Your task to perform on an android device: turn off location Image 0: 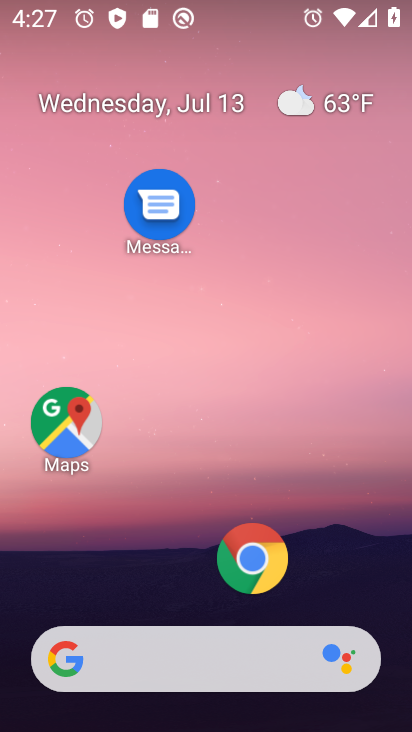
Step 0: drag from (199, 517) to (214, 192)
Your task to perform on an android device: turn off location Image 1: 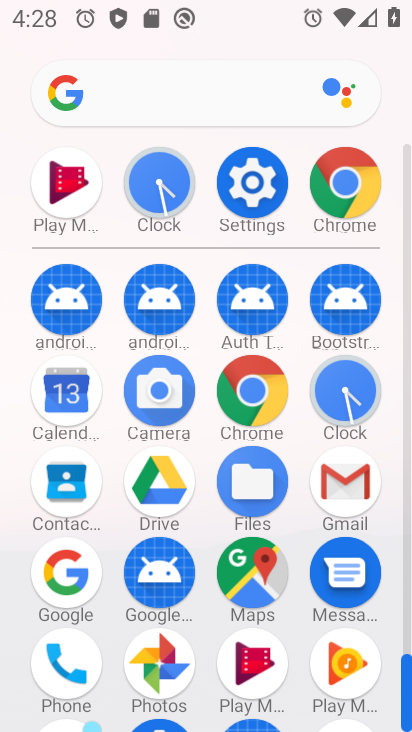
Step 1: click (258, 193)
Your task to perform on an android device: turn off location Image 2: 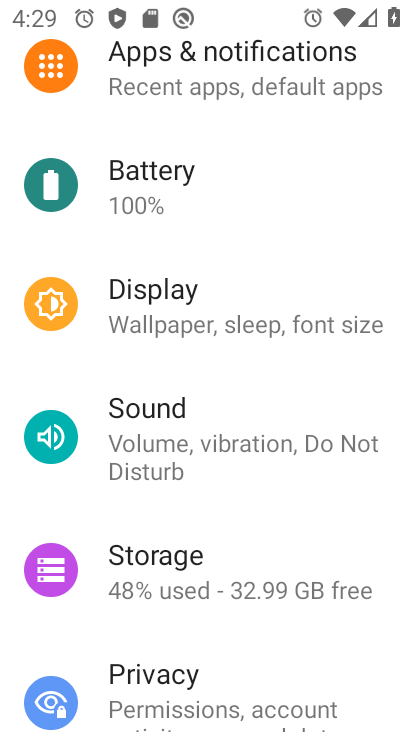
Step 2: drag from (165, 690) to (191, 276)
Your task to perform on an android device: turn off location Image 3: 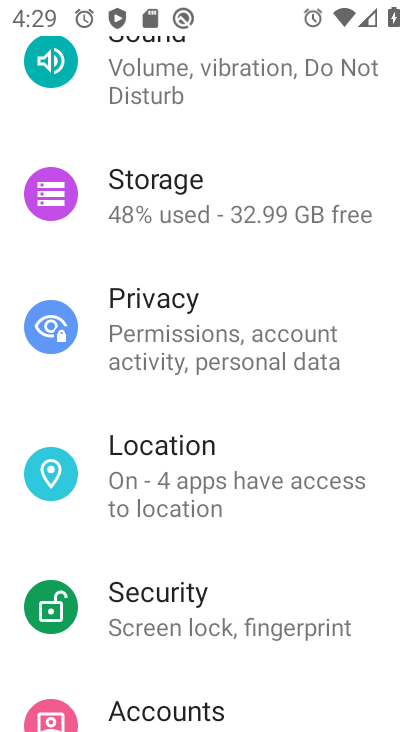
Step 3: click (153, 476)
Your task to perform on an android device: turn off location Image 4: 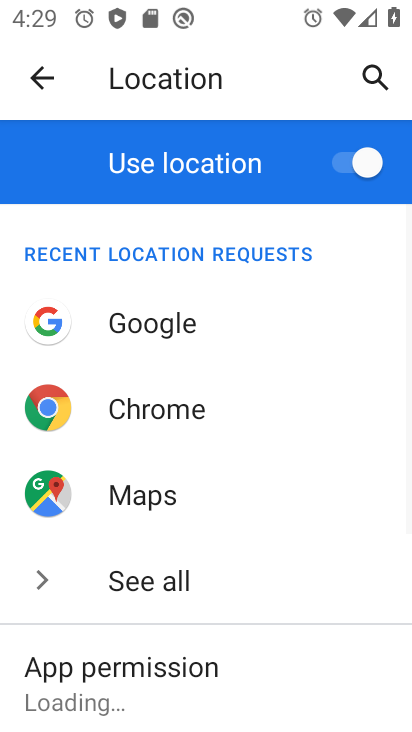
Step 4: click (344, 160)
Your task to perform on an android device: turn off location Image 5: 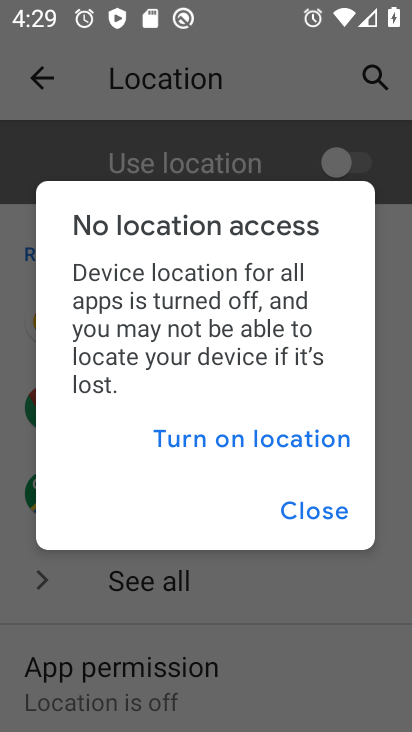
Step 5: click (323, 510)
Your task to perform on an android device: turn off location Image 6: 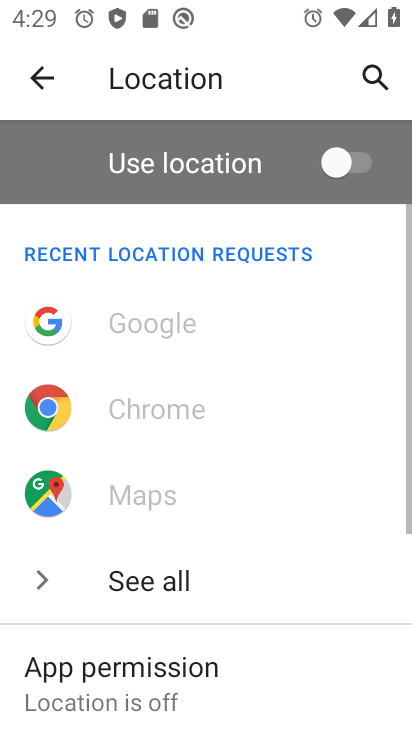
Step 6: task complete